Your task to perform on an android device: Go to Yahoo.com Image 0: 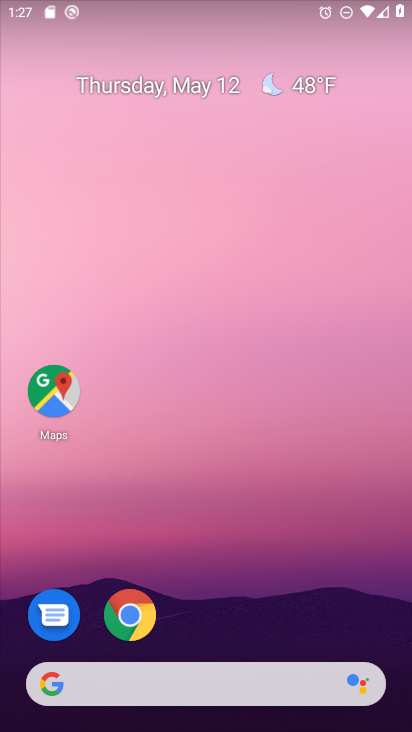
Step 0: drag from (317, 642) to (342, 14)
Your task to perform on an android device: Go to Yahoo.com Image 1: 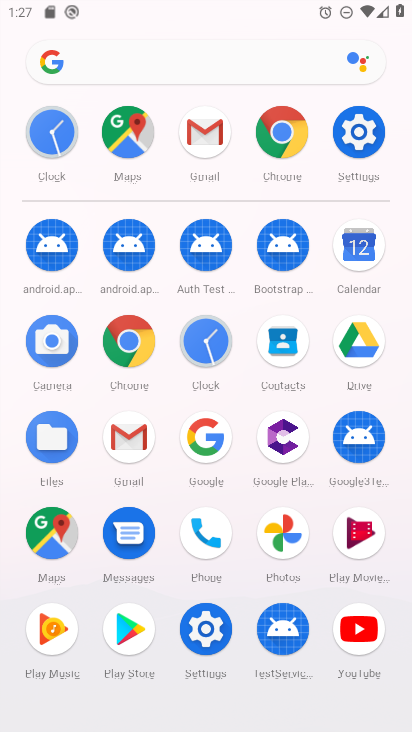
Step 1: click (119, 355)
Your task to perform on an android device: Go to Yahoo.com Image 2: 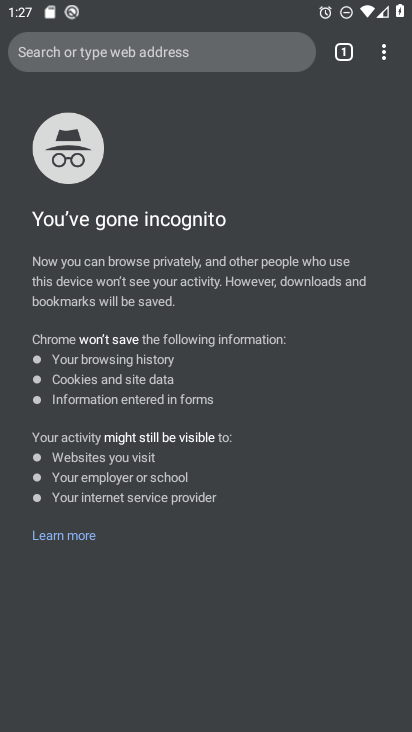
Step 2: drag from (386, 53) to (255, 149)
Your task to perform on an android device: Go to Yahoo.com Image 3: 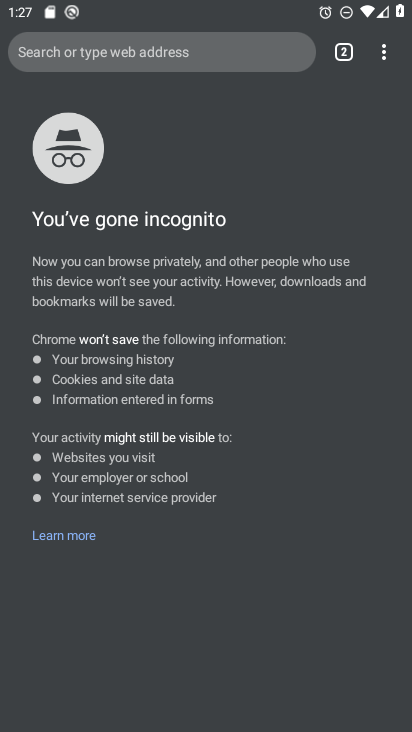
Step 3: press back button
Your task to perform on an android device: Go to Yahoo.com Image 4: 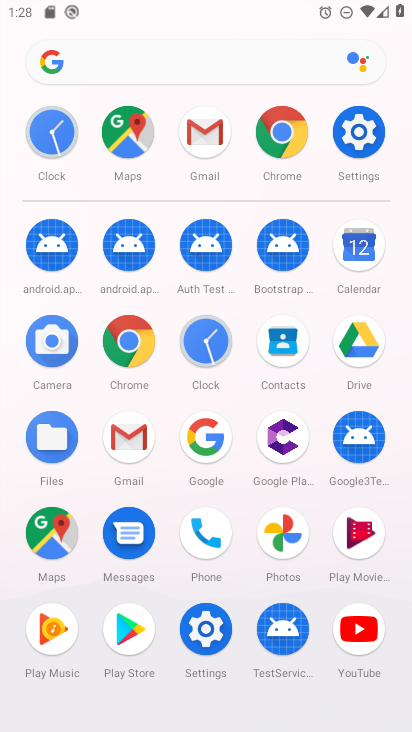
Step 4: click (141, 348)
Your task to perform on an android device: Go to Yahoo.com Image 5: 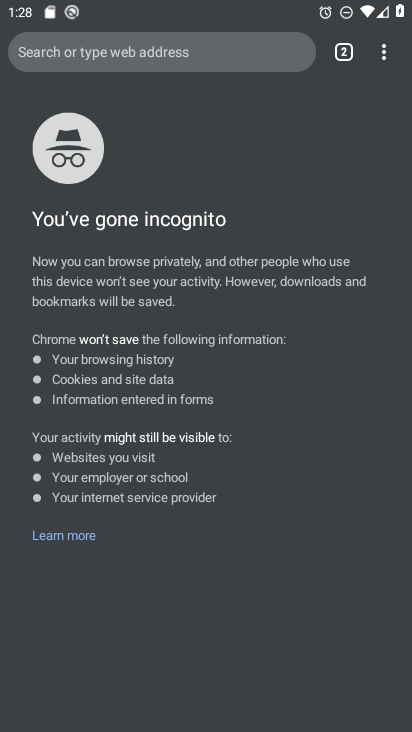
Step 5: drag from (384, 52) to (236, 104)
Your task to perform on an android device: Go to Yahoo.com Image 6: 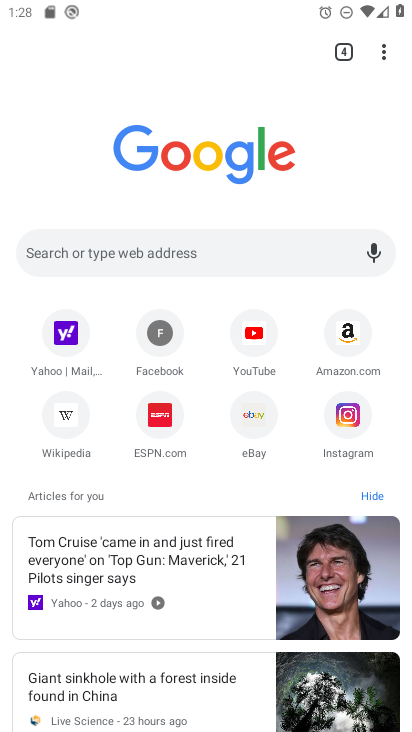
Step 6: click (75, 340)
Your task to perform on an android device: Go to Yahoo.com Image 7: 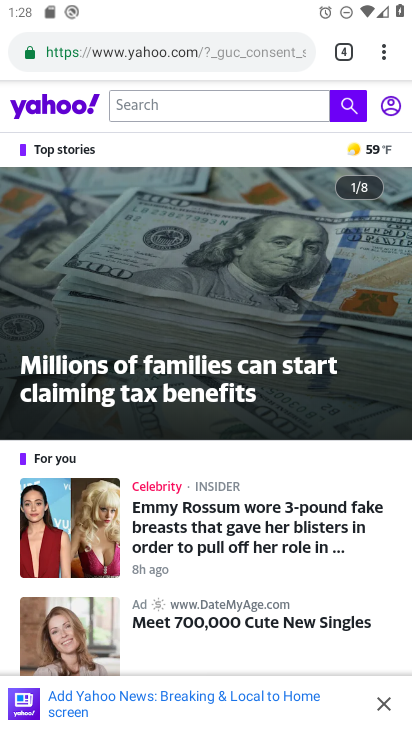
Step 7: task complete